Your task to perform on an android device: Set the phone to "Do not disturb". Image 0: 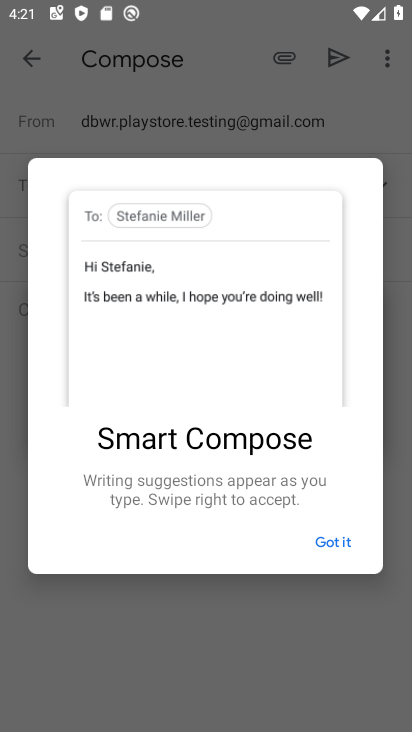
Step 0: press home button
Your task to perform on an android device: Set the phone to "Do not disturb". Image 1: 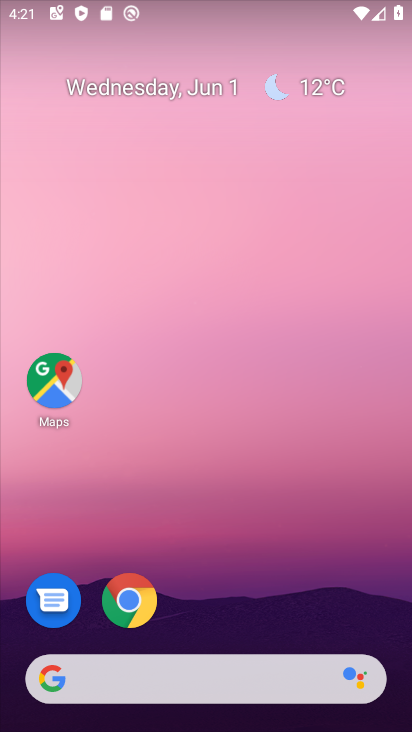
Step 1: drag from (366, 629) to (317, 108)
Your task to perform on an android device: Set the phone to "Do not disturb". Image 2: 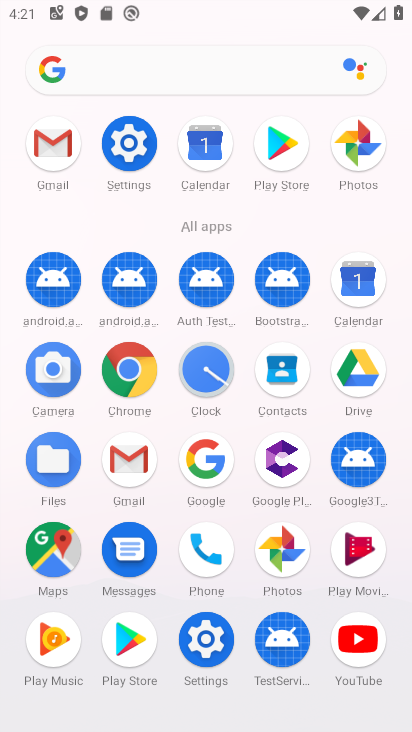
Step 2: click (203, 639)
Your task to perform on an android device: Set the phone to "Do not disturb". Image 3: 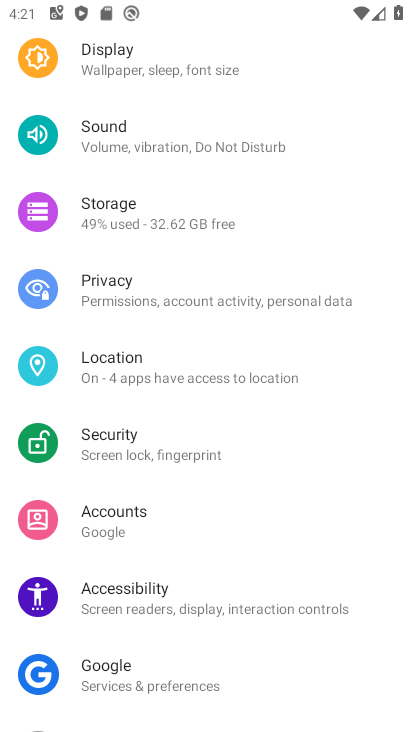
Step 3: click (144, 140)
Your task to perform on an android device: Set the phone to "Do not disturb". Image 4: 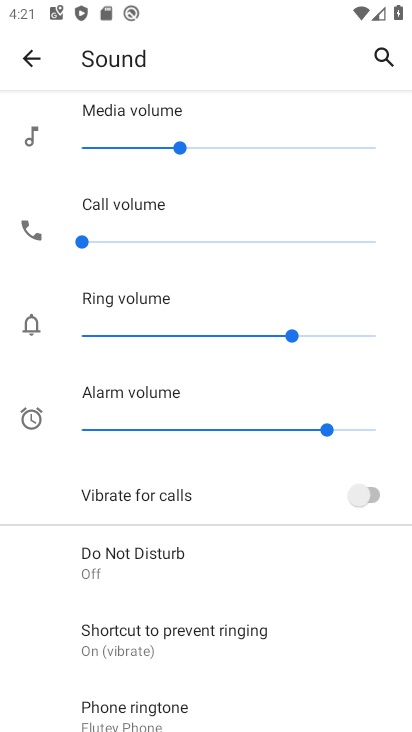
Step 4: click (121, 554)
Your task to perform on an android device: Set the phone to "Do not disturb". Image 5: 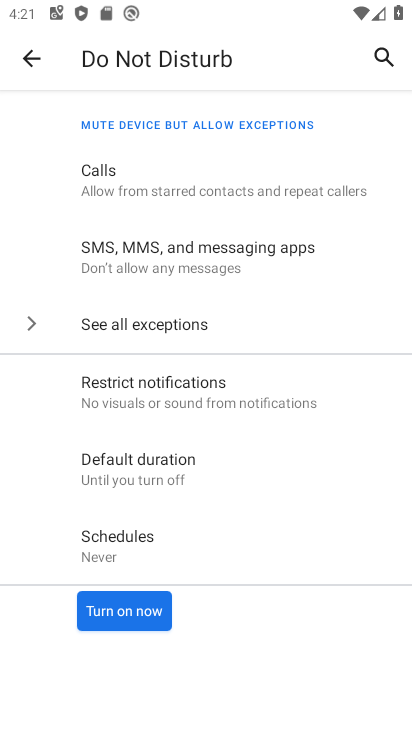
Step 5: click (143, 611)
Your task to perform on an android device: Set the phone to "Do not disturb". Image 6: 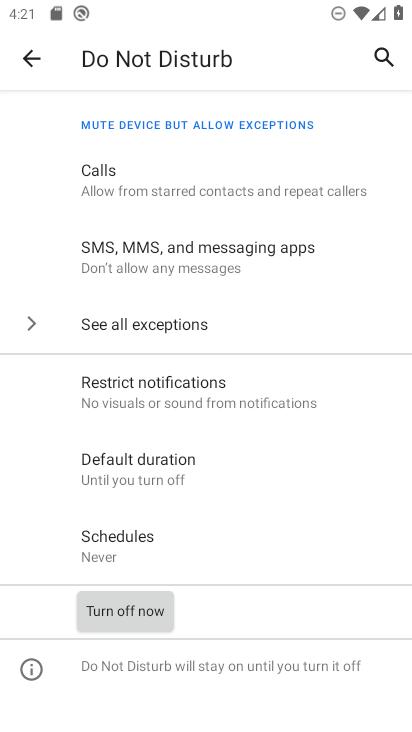
Step 6: task complete